Your task to perform on an android device: Search for "razer blade" on target.com, select the first entry, add it to the cart, then select checkout. Image 0: 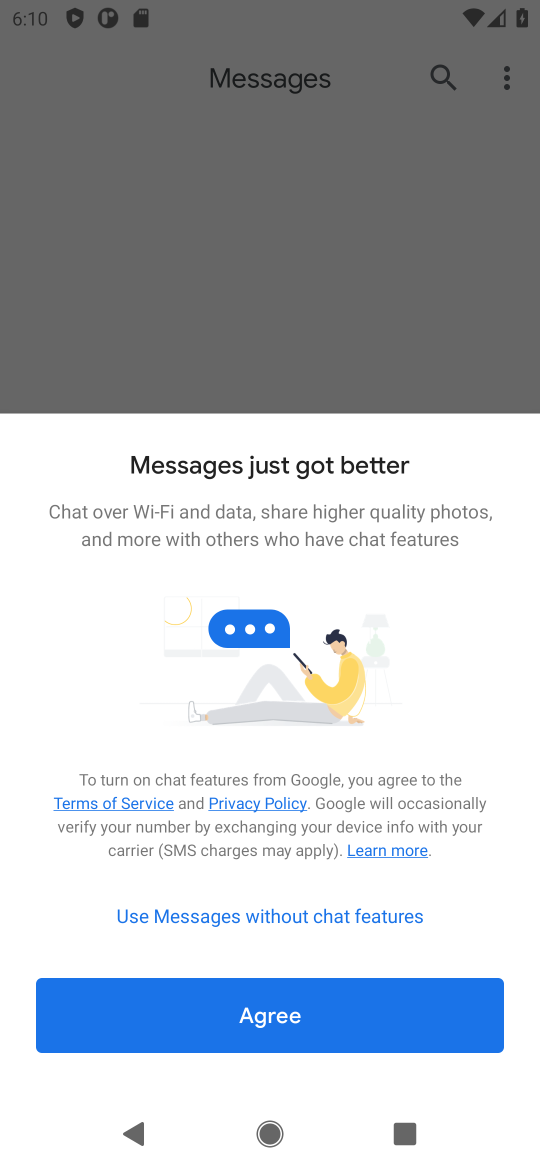
Step 0: press home button
Your task to perform on an android device: Search for "razer blade" on target.com, select the first entry, add it to the cart, then select checkout. Image 1: 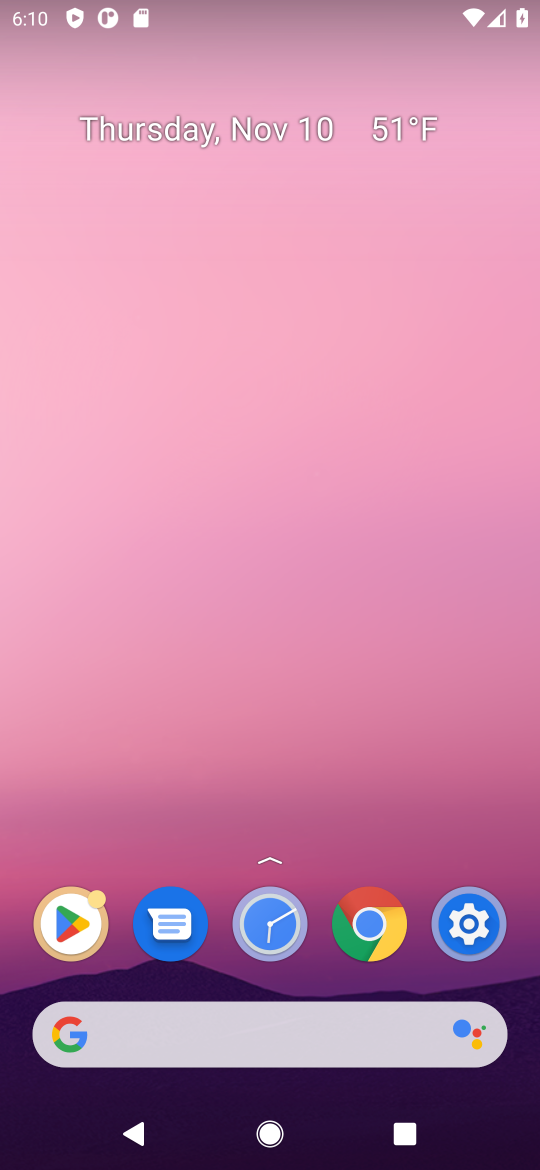
Step 1: click (371, 933)
Your task to perform on an android device: Search for "razer blade" on target.com, select the first entry, add it to the cart, then select checkout. Image 2: 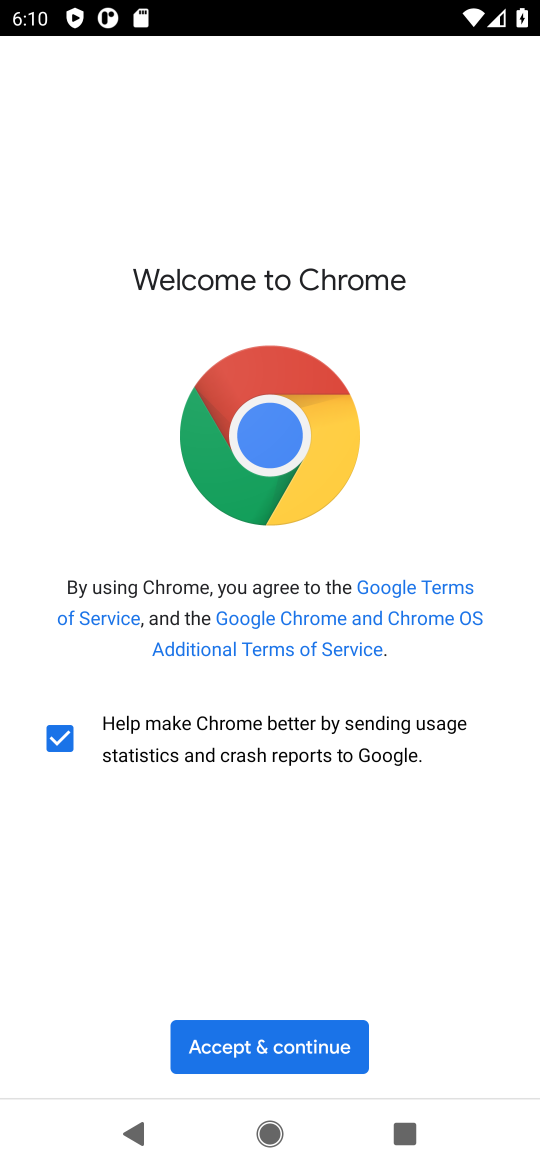
Step 2: click (243, 1056)
Your task to perform on an android device: Search for "razer blade" on target.com, select the first entry, add it to the cart, then select checkout. Image 3: 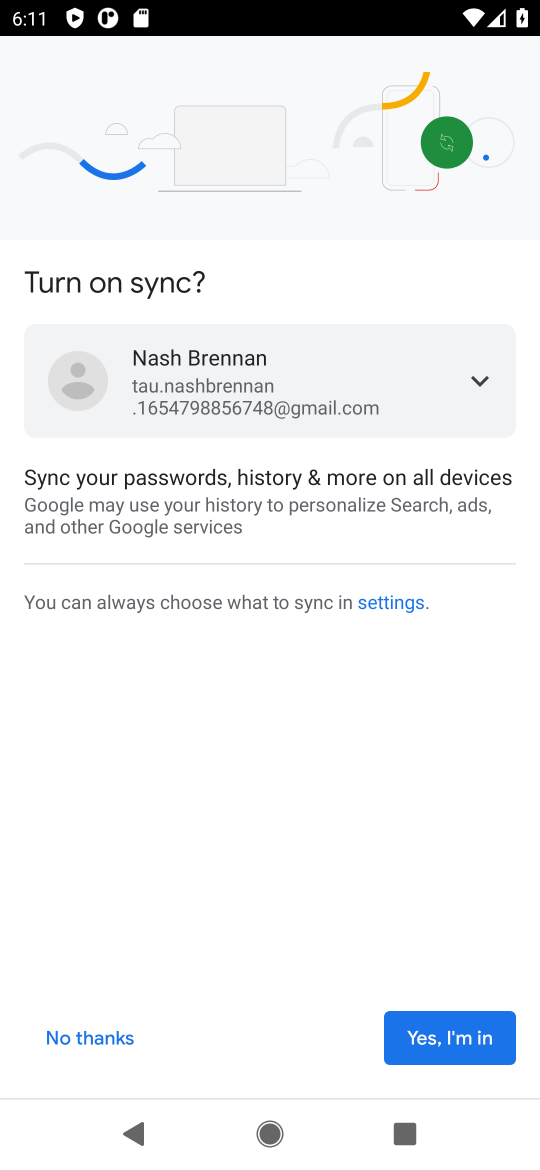
Step 3: click (471, 1056)
Your task to perform on an android device: Search for "razer blade" on target.com, select the first entry, add it to the cart, then select checkout. Image 4: 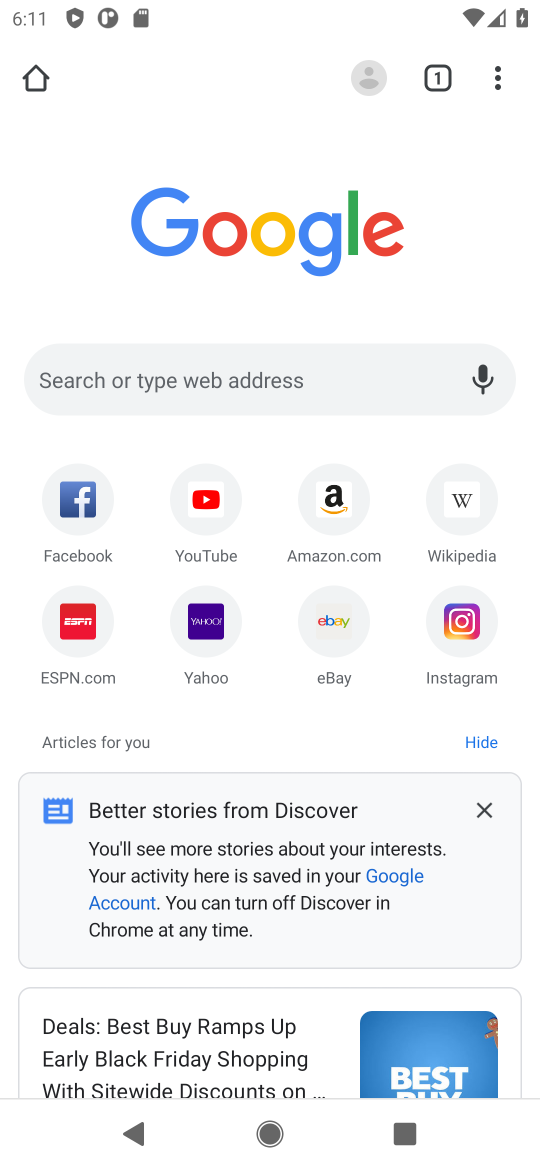
Step 4: click (203, 386)
Your task to perform on an android device: Search for "razer blade" on target.com, select the first entry, add it to the cart, then select checkout. Image 5: 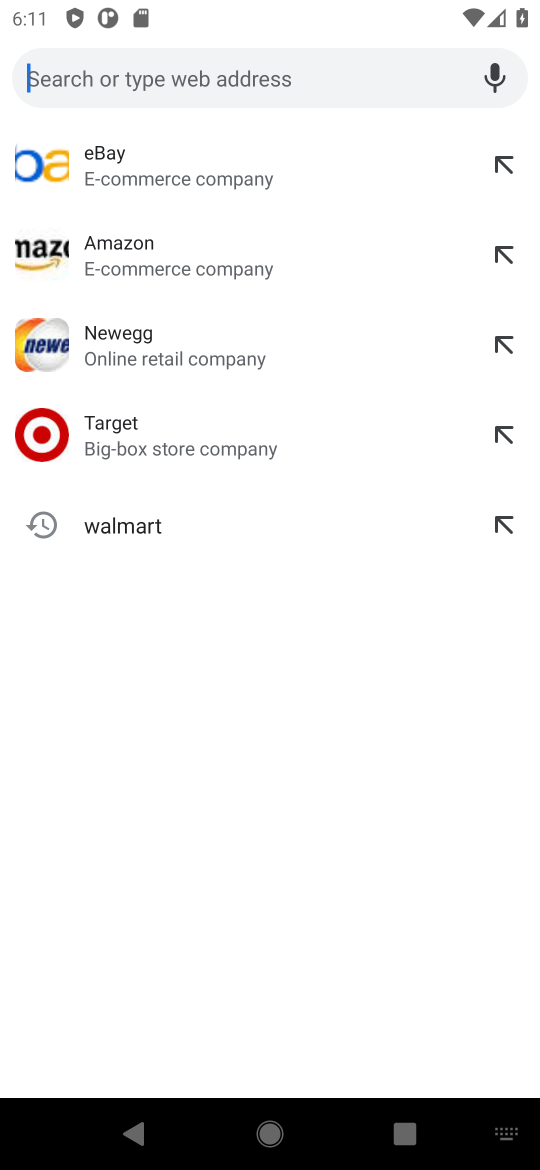
Step 5: type "target.com"
Your task to perform on an android device: Search for "razer blade" on target.com, select the first entry, add it to the cart, then select checkout. Image 6: 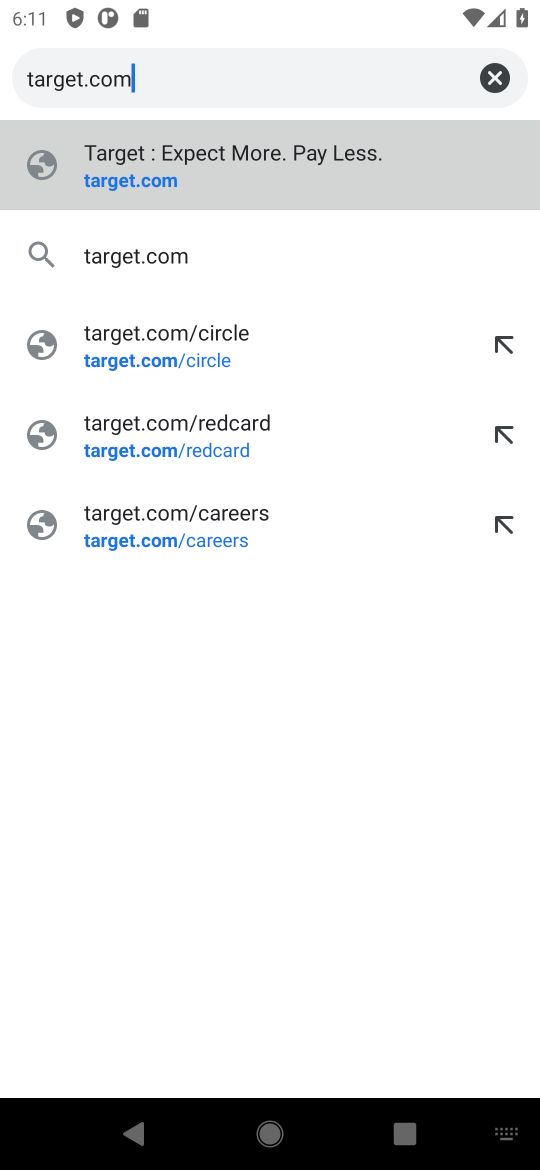
Step 6: click (127, 182)
Your task to perform on an android device: Search for "razer blade" on target.com, select the first entry, add it to the cart, then select checkout. Image 7: 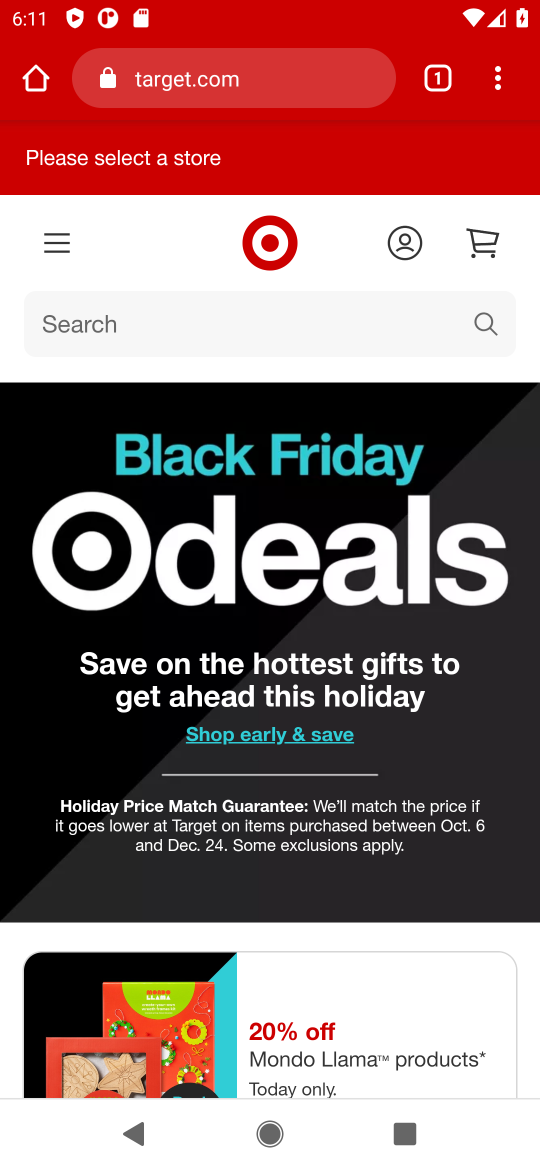
Step 7: click (481, 326)
Your task to perform on an android device: Search for "razer blade" on target.com, select the first entry, add it to the cart, then select checkout. Image 8: 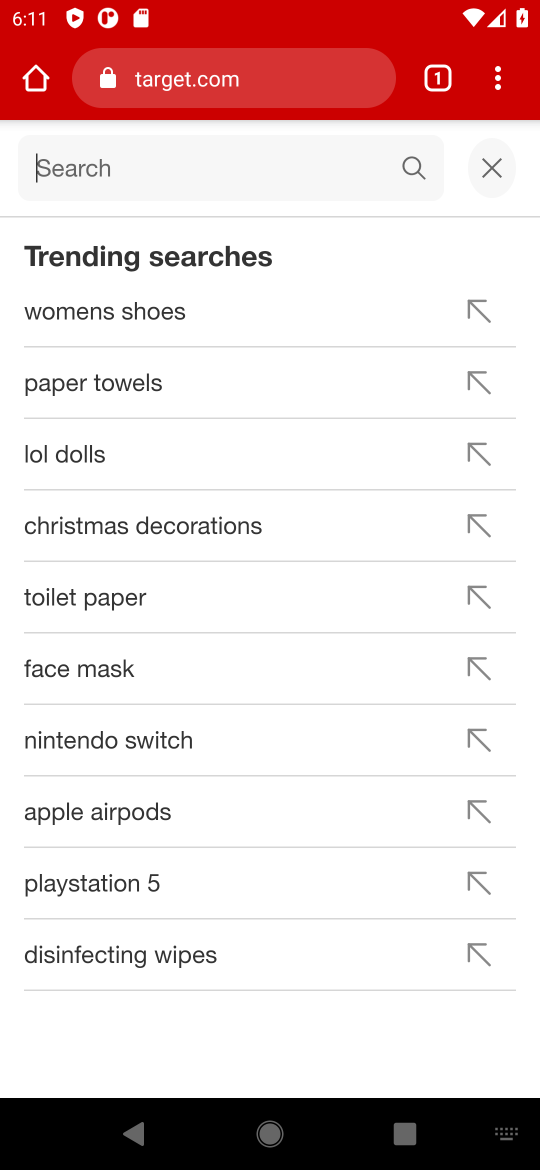
Step 8: type "razer blade"
Your task to perform on an android device: Search for "razer blade" on target.com, select the first entry, add it to the cart, then select checkout. Image 9: 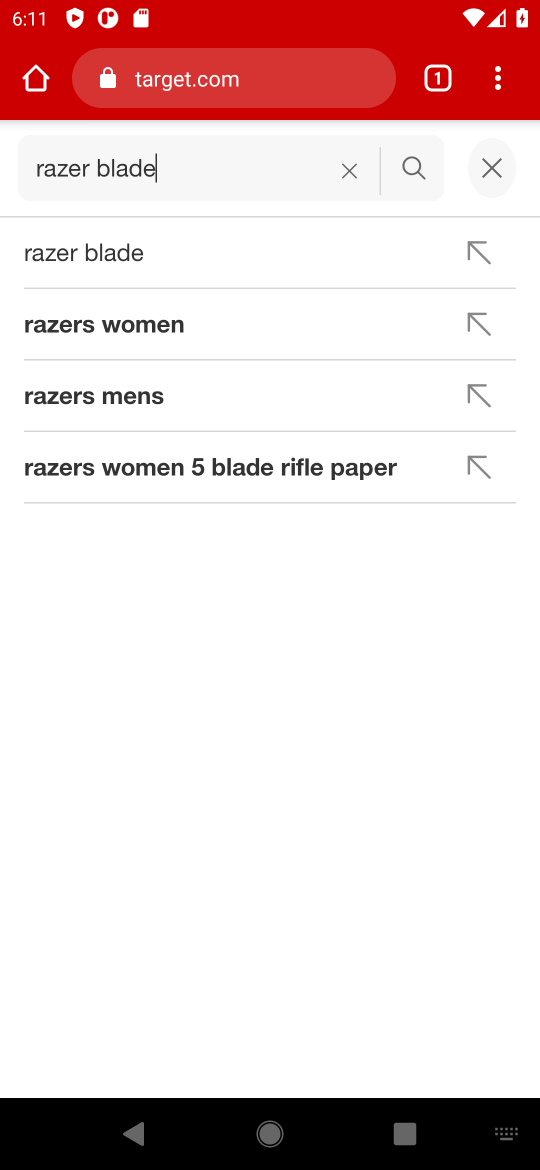
Step 9: click (95, 258)
Your task to perform on an android device: Search for "razer blade" on target.com, select the first entry, add it to the cart, then select checkout. Image 10: 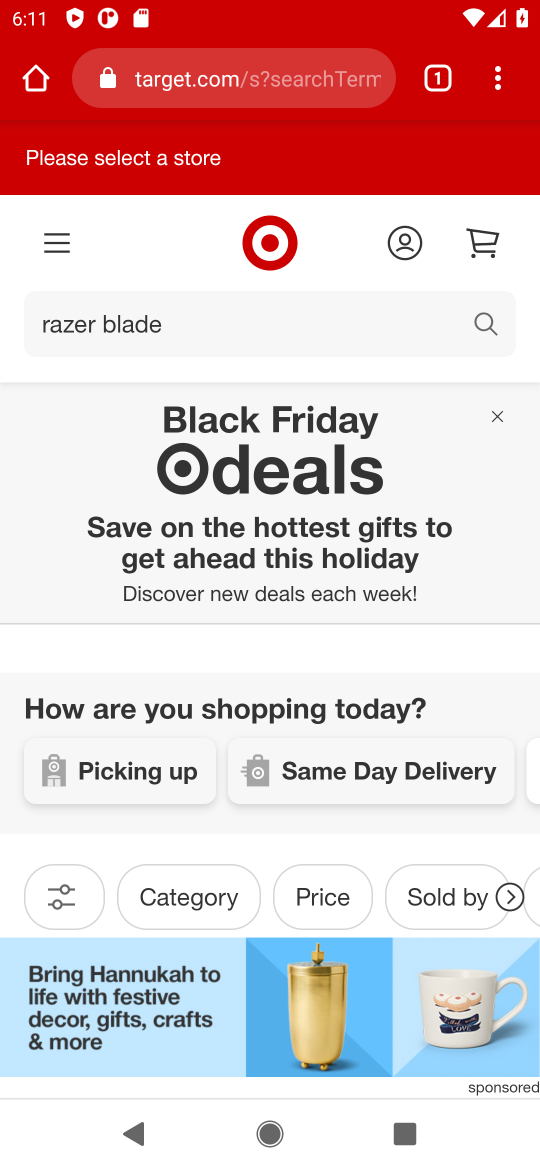
Step 10: task complete